Your task to perform on an android device: Turn off the flashlight Image 0: 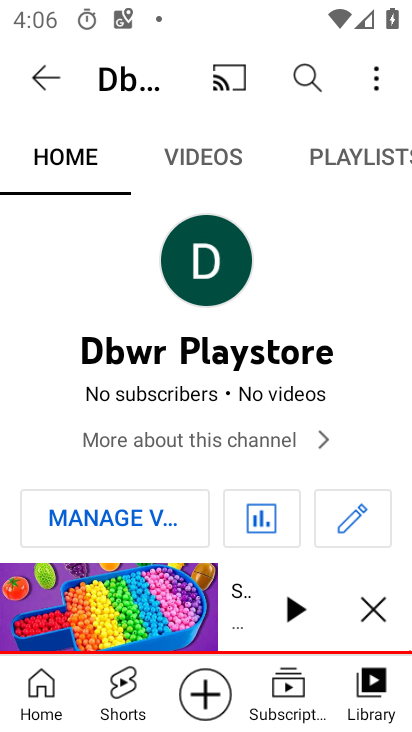
Step 0: press home button
Your task to perform on an android device: Turn off the flashlight Image 1: 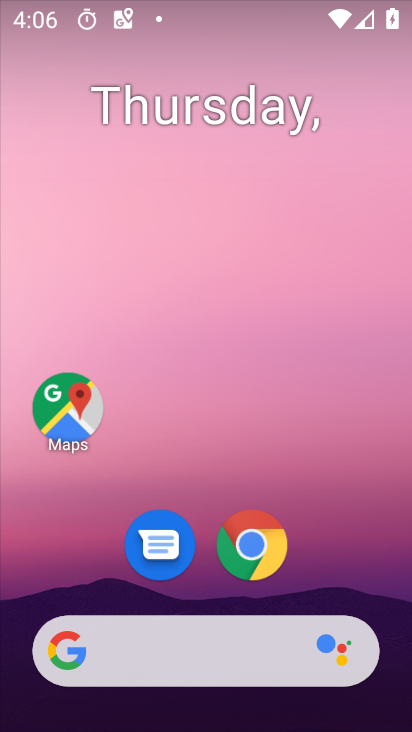
Step 1: drag from (217, 648) to (216, 97)
Your task to perform on an android device: Turn off the flashlight Image 2: 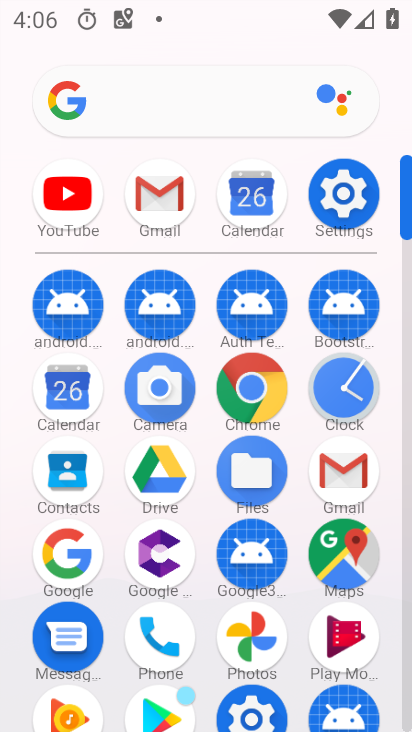
Step 2: click (340, 197)
Your task to perform on an android device: Turn off the flashlight Image 3: 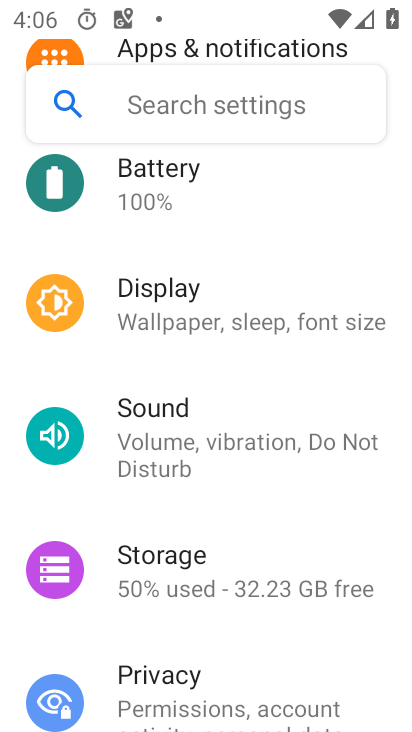
Step 3: task complete